Your task to perform on an android device: refresh tabs in the chrome app Image 0: 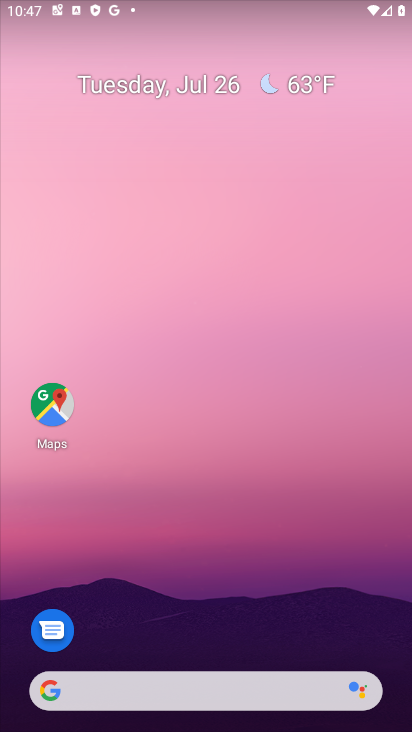
Step 0: drag from (241, 468) to (272, 47)
Your task to perform on an android device: refresh tabs in the chrome app Image 1: 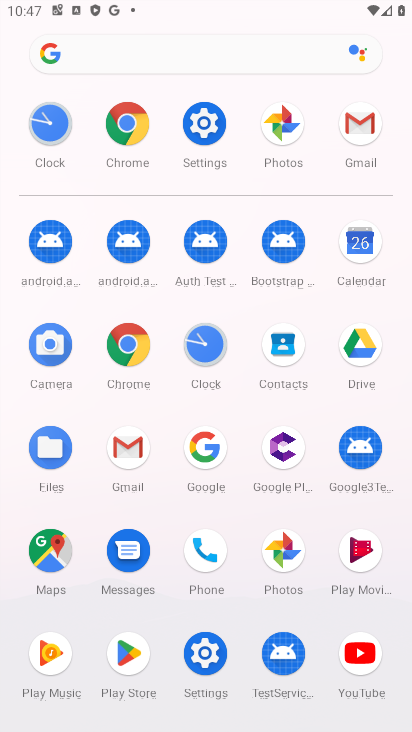
Step 1: click (127, 146)
Your task to perform on an android device: refresh tabs in the chrome app Image 2: 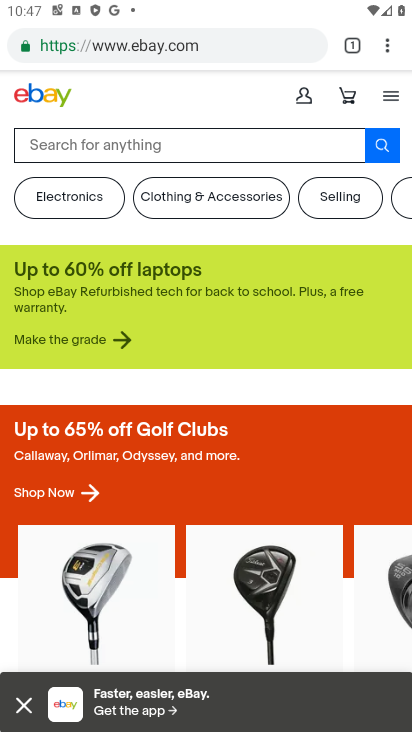
Step 2: click (389, 44)
Your task to perform on an android device: refresh tabs in the chrome app Image 3: 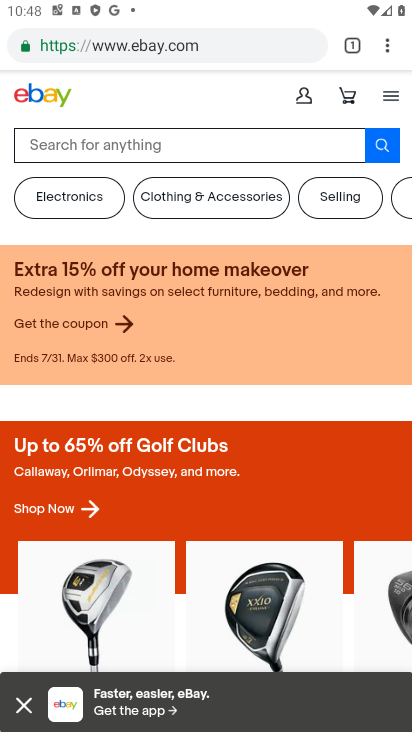
Step 3: task complete